Your task to perform on an android device: Open the web browser Image 0: 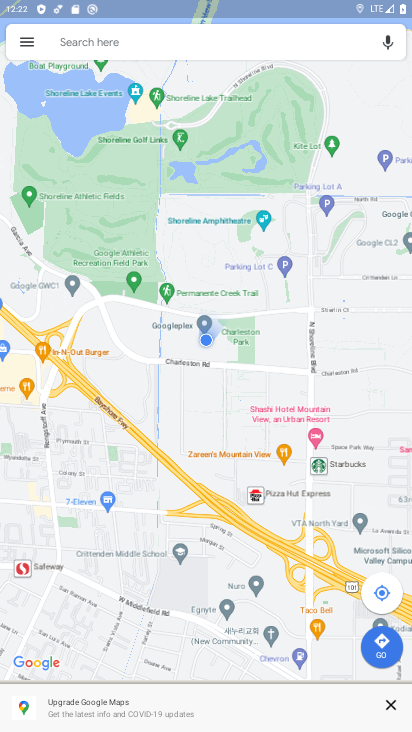
Step 0: press home button
Your task to perform on an android device: Open the web browser Image 1: 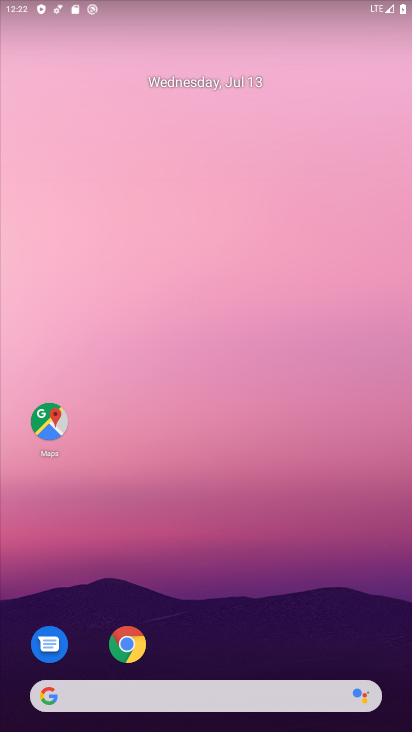
Step 1: click (133, 652)
Your task to perform on an android device: Open the web browser Image 2: 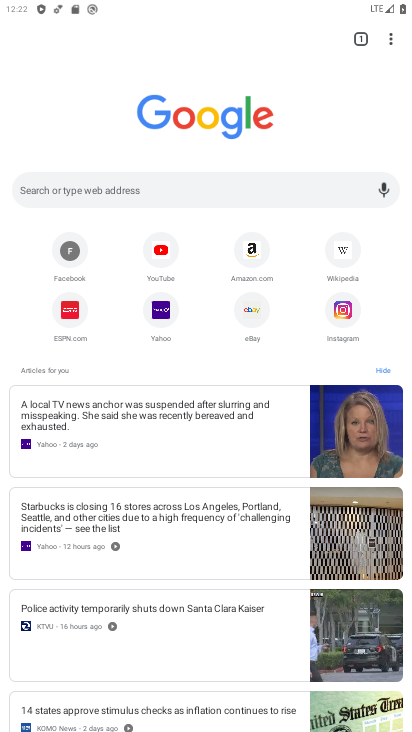
Step 2: task complete